Your task to perform on an android device: Go to CNN.com Image 0: 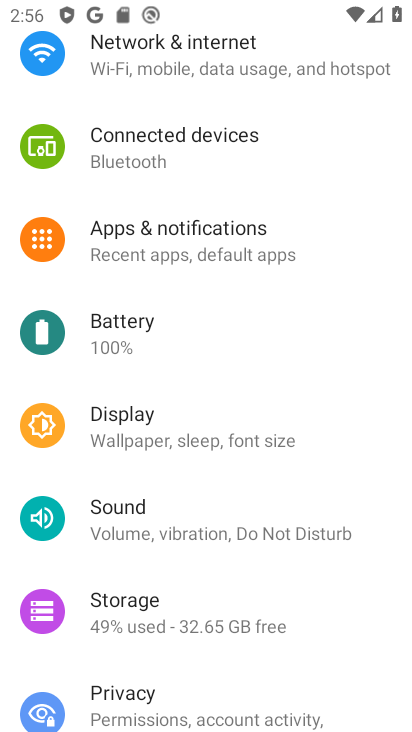
Step 0: press home button
Your task to perform on an android device: Go to CNN.com Image 1: 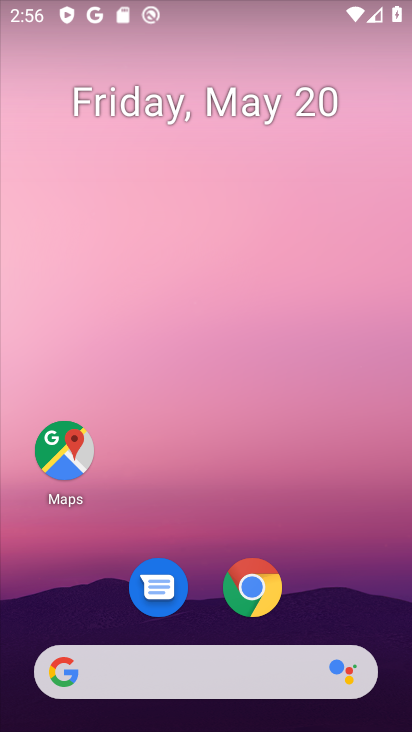
Step 1: click (251, 586)
Your task to perform on an android device: Go to CNN.com Image 2: 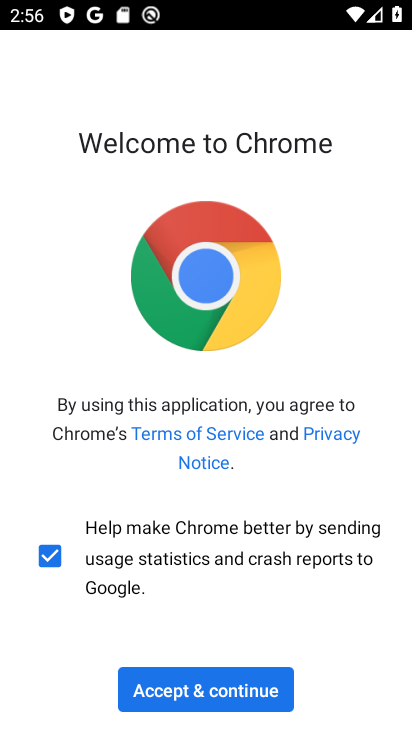
Step 2: click (213, 685)
Your task to perform on an android device: Go to CNN.com Image 3: 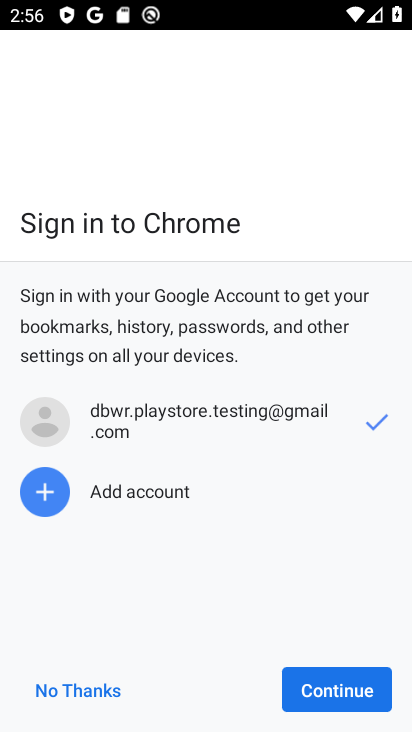
Step 3: click (318, 686)
Your task to perform on an android device: Go to CNN.com Image 4: 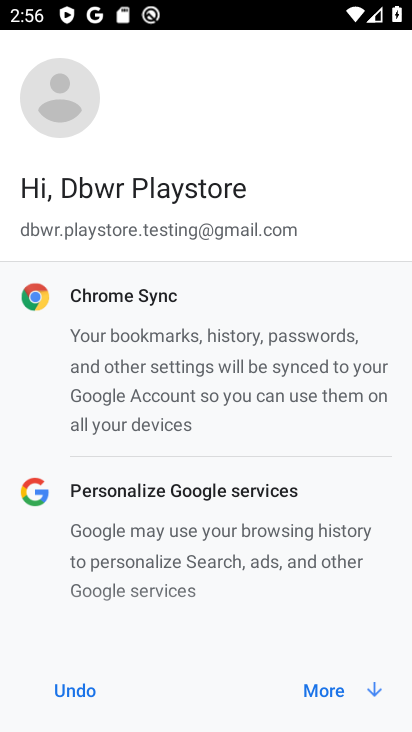
Step 4: click (318, 686)
Your task to perform on an android device: Go to CNN.com Image 5: 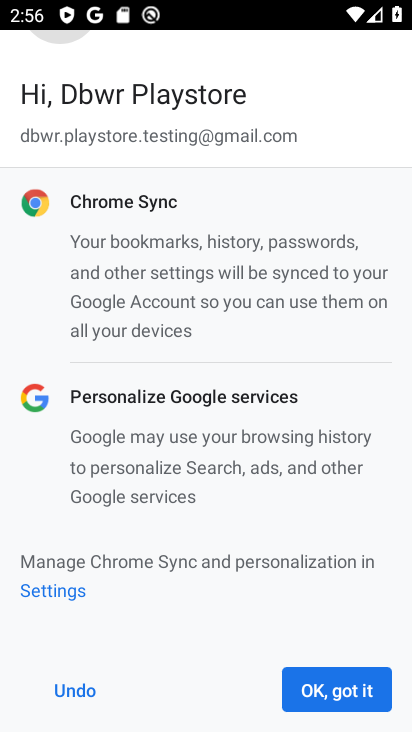
Step 5: click (318, 686)
Your task to perform on an android device: Go to CNN.com Image 6: 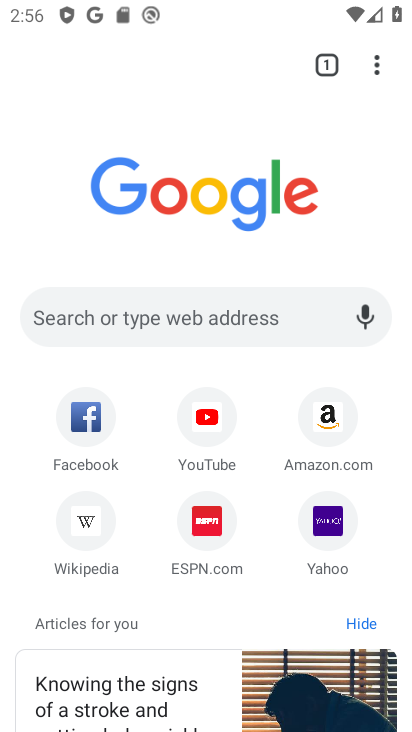
Step 6: click (162, 309)
Your task to perform on an android device: Go to CNN.com Image 7: 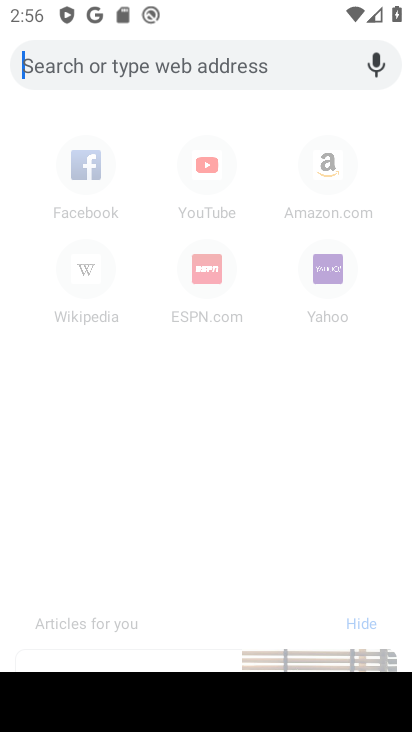
Step 7: type "cnn.com"
Your task to perform on an android device: Go to CNN.com Image 8: 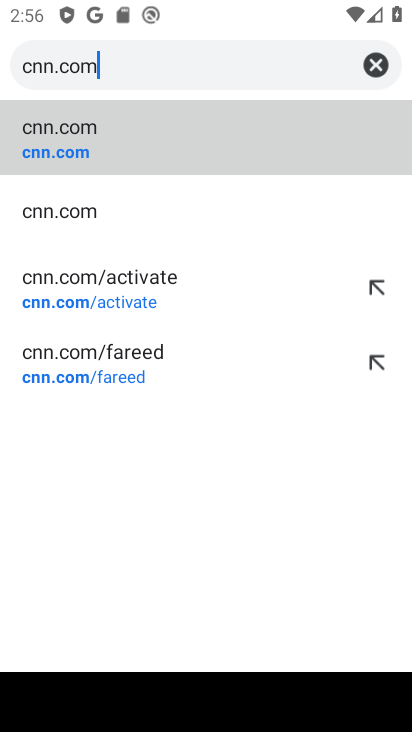
Step 8: click (77, 146)
Your task to perform on an android device: Go to CNN.com Image 9: 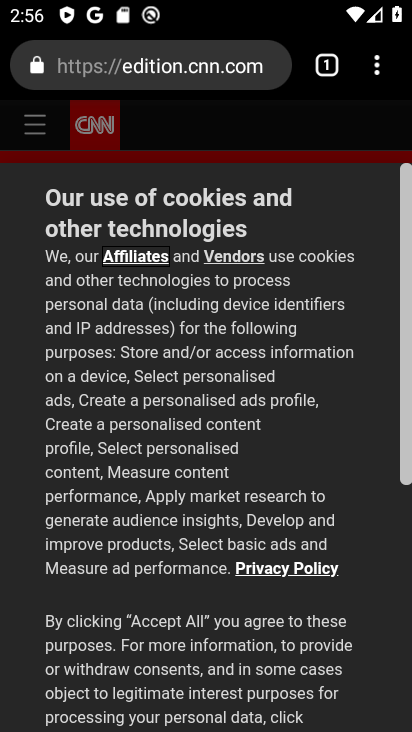
Step 9: drag from (215, 678) to (329, 244)
Your task to perform on an android device: Go to CNN.com Image 10: 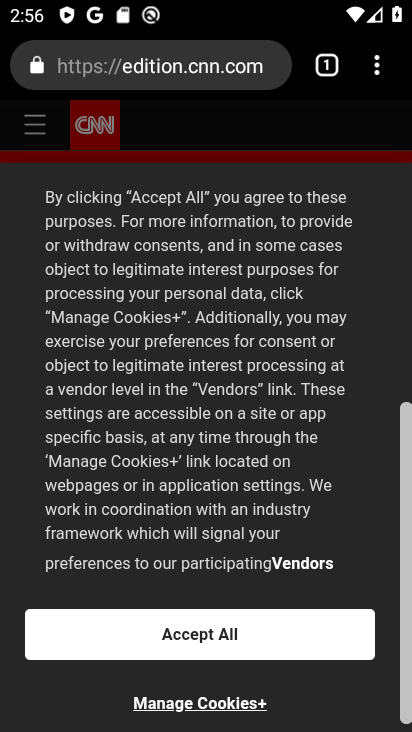
Step 10: click (215, 632)
Your task to perform on an android device: Go to CNN.com Image 11: 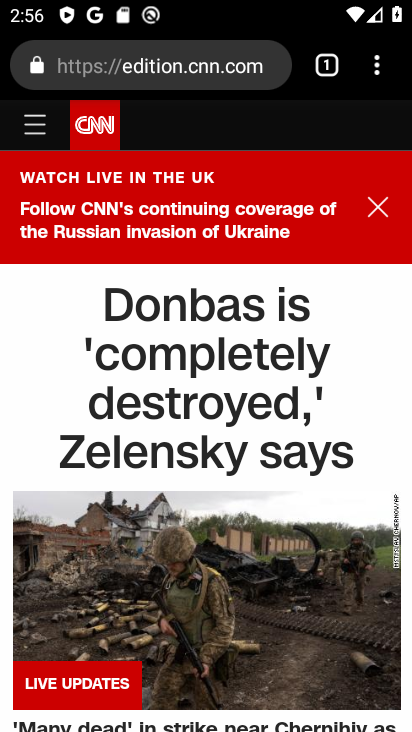
Step 11: task complete